Your task to perform on an android device: Set the phone to "Do not disturb". Image 0: 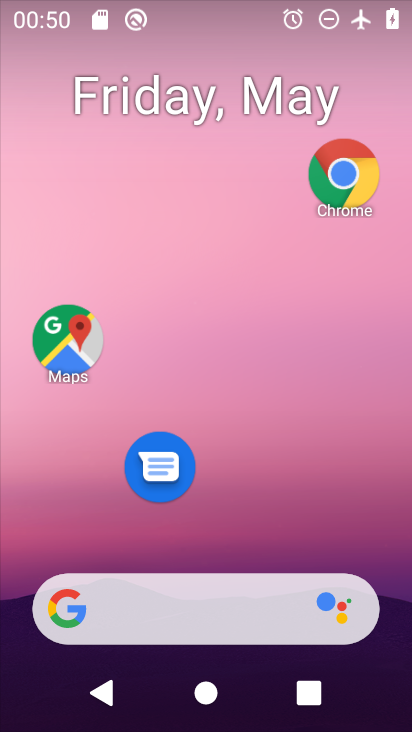
Step 0: drag from (200, 175) to (195, 475)
Your task to perform on an android device: Set the phone to "Do not disturb". Image 1: 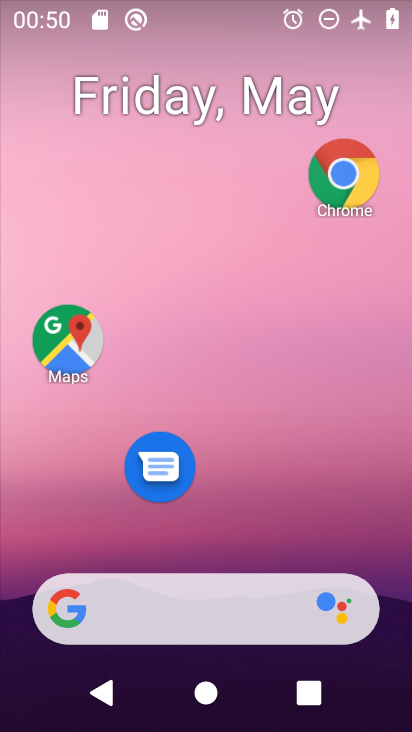
Step 1: drag from (206, 4) to (198, 384)
Your task to perform on an android device: Set the phone to "Do not disturb". Image 2: 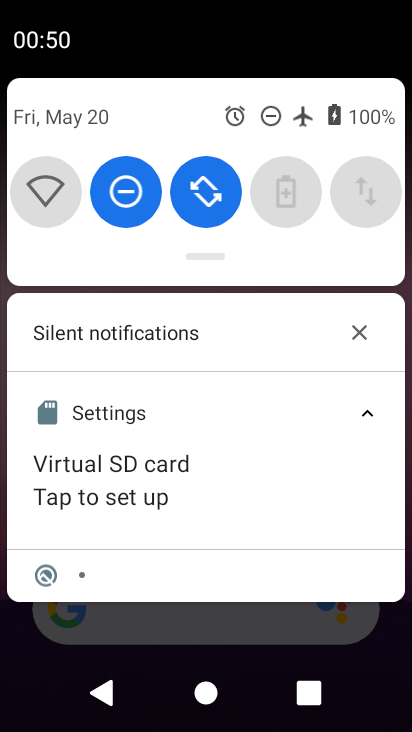
Step 2: click (125, 188)
Your task to perform on an android device: Set the phone to "Do not disturb". Image 3: 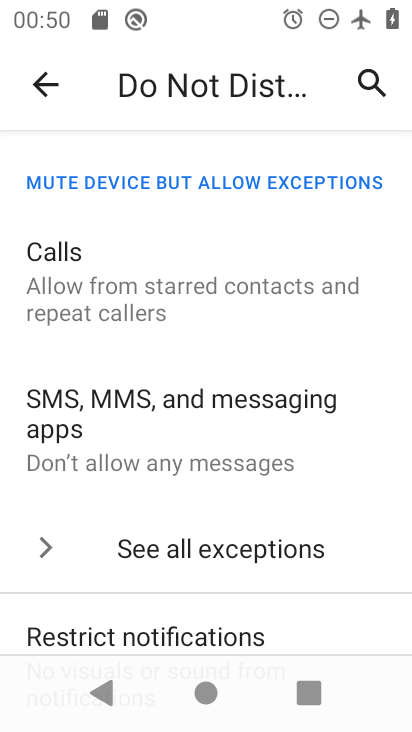
Step 3: task complete